Your task to perform on an android device: open chrome and create a bookmark for the current page Image 0: 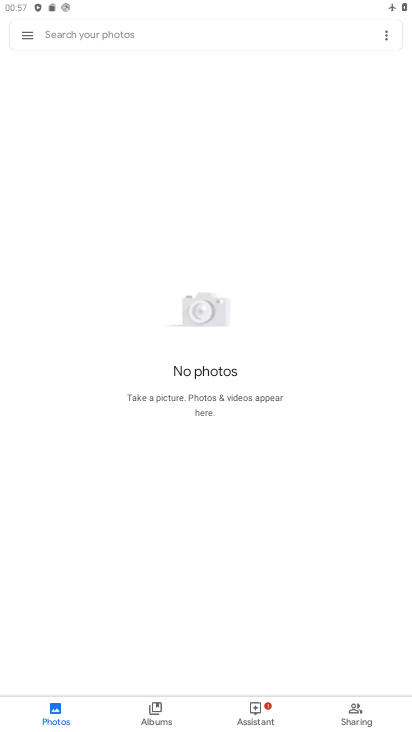
Step 0: press home button
Your task to perform on an android device: open chrome and create a bookmark for the current page Image 1: 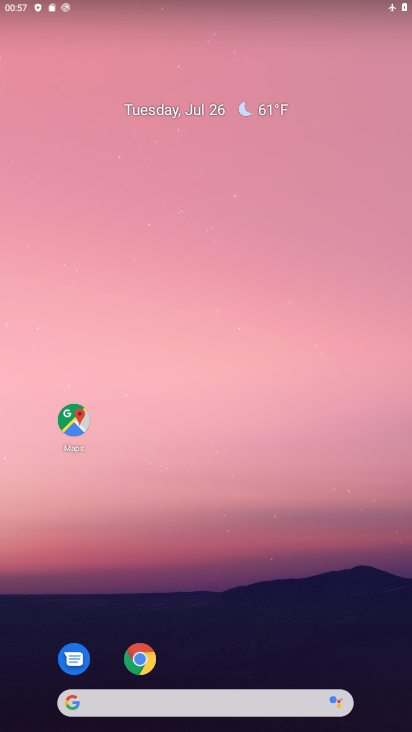
Step 1: drag from (305, 658) to (188, 158)
Your task to perform on an android device: open chrome and create a bookmark for the current page Image 2: 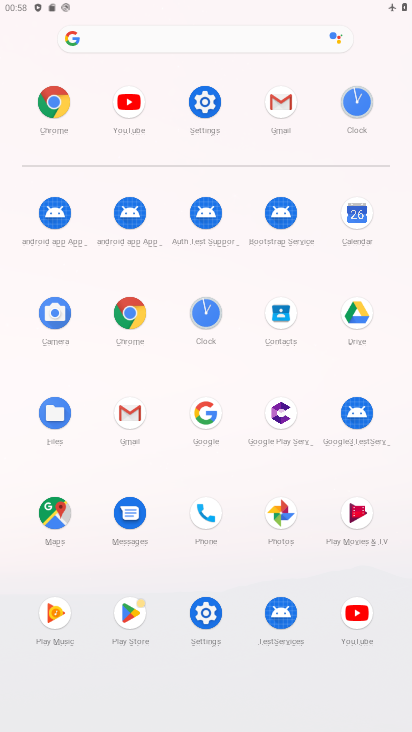
Step 2: click (125, 318)
Your task to perform on an android device: open chrome and create a bookmark for the current page Image 3: 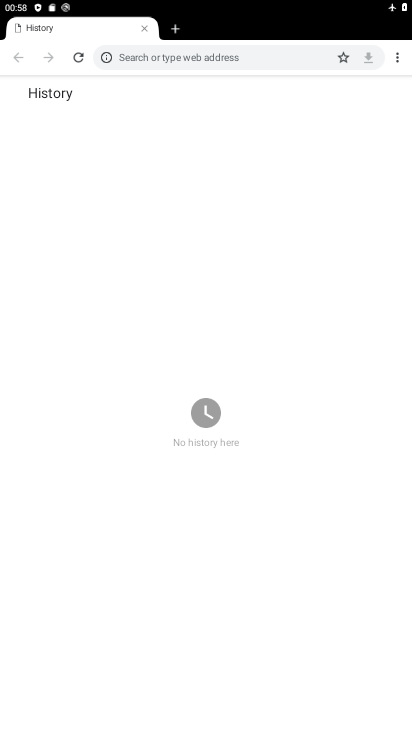
Step 3: click (339, 58)
Your task to perform on an android device: open chrome and create a bookmark for the current page Image 4: 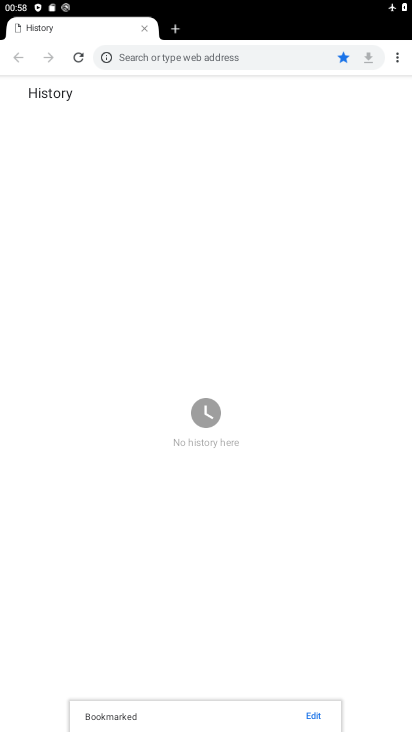
Step 4: task complete